Your task to perform on an android device: Add "beats solo 3" to the cart on newegg.com Image 0: 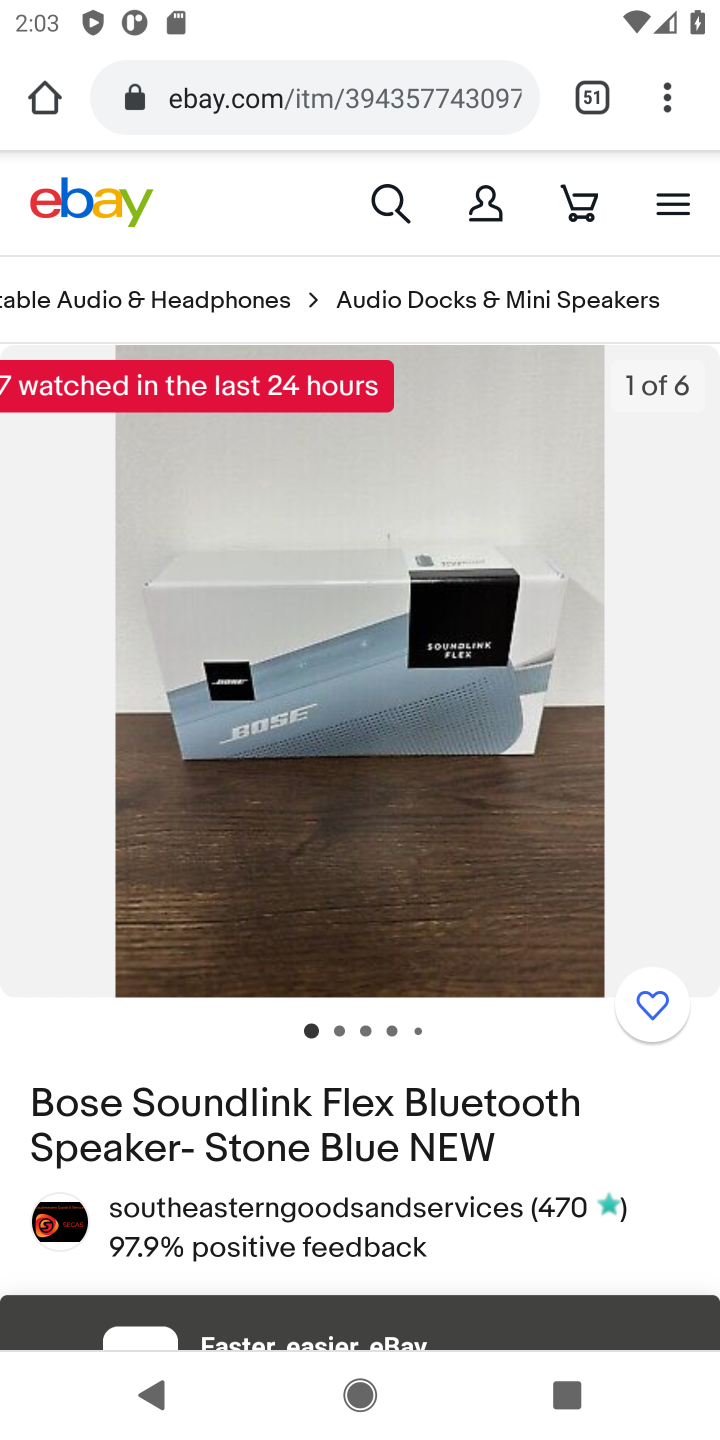
Step 0: press home button
Your task to perform on an android device: Add "beats solo 3" to the cart on newegg.com Image 1: 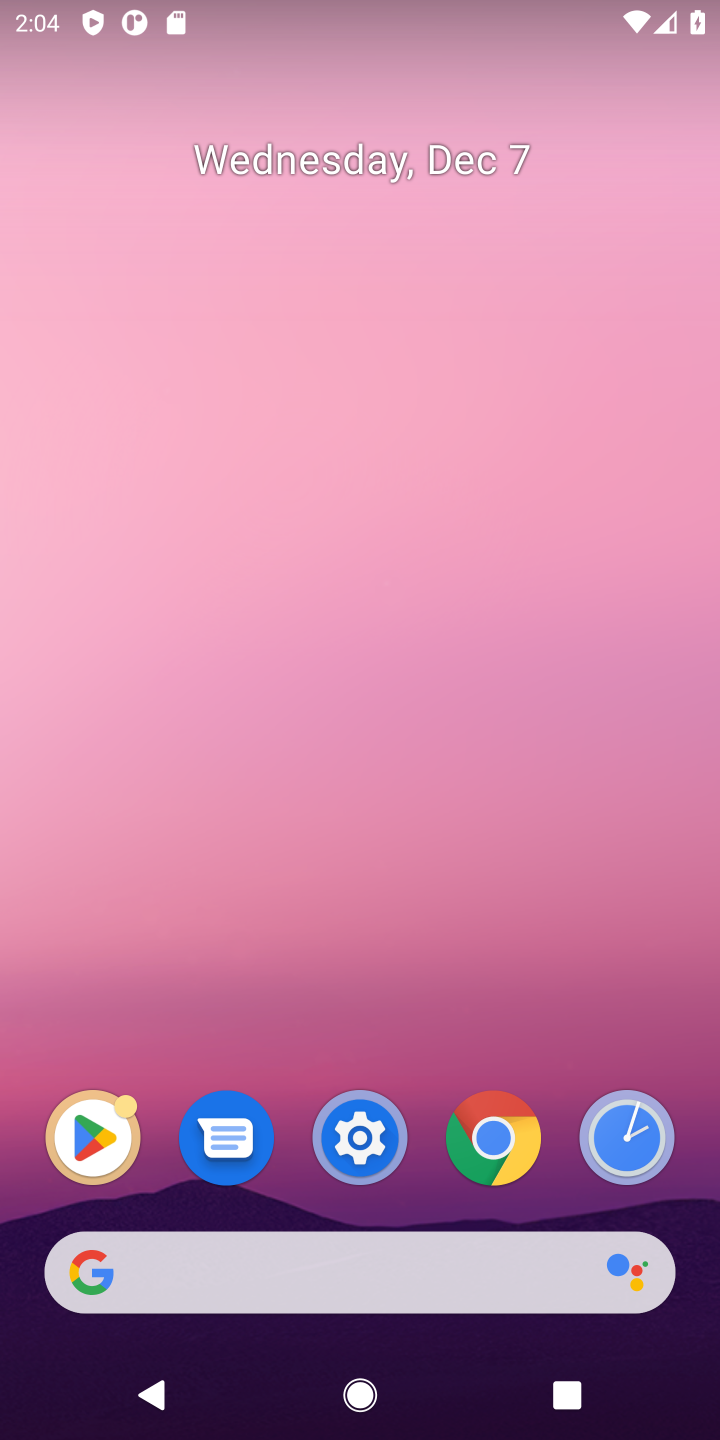
Step 1: click (305, 1250)
Your task to perform on an android device: Add "beats solo 3" to the cart on newegg.com Image 2: 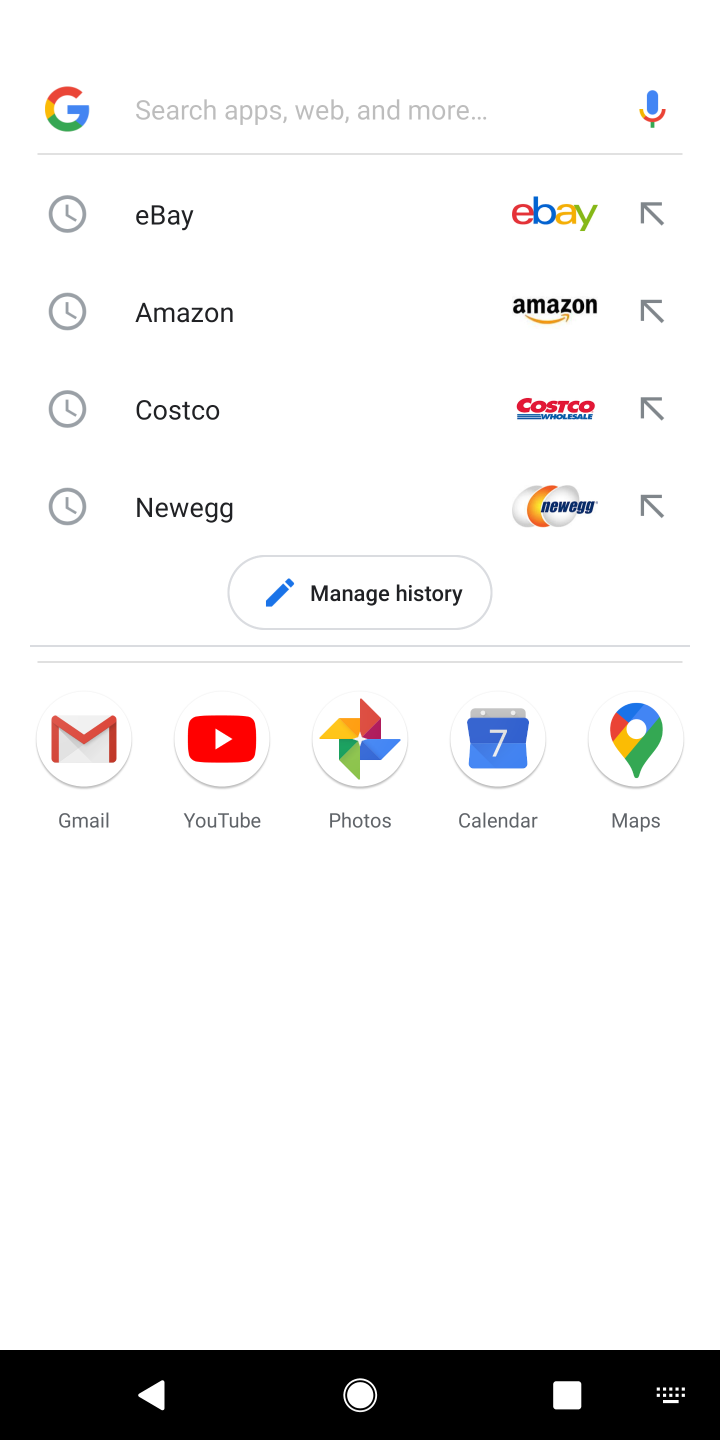
Step 2: type "beats solo"
Your task to perform on an android device: Add "beats solo 3" to the cart on newegg.com Image 3: 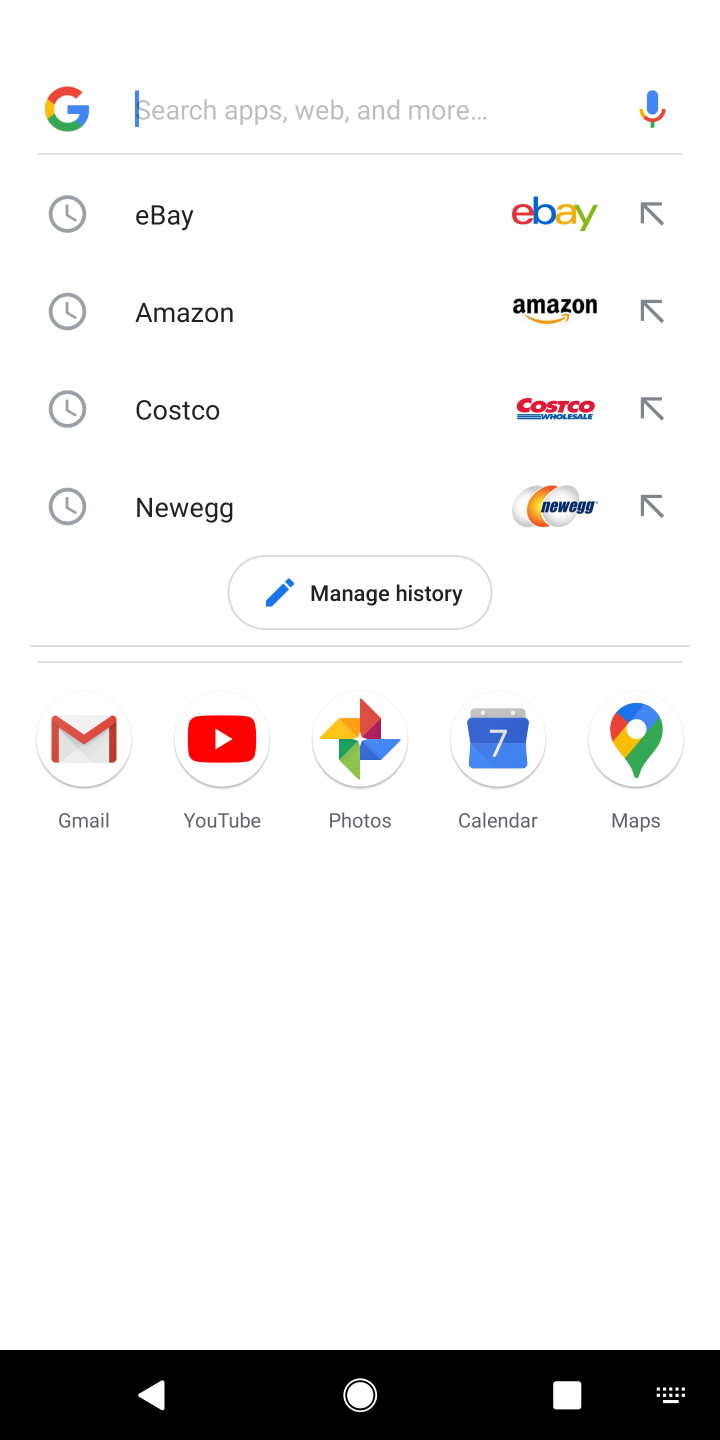
Step 3: click (196, 499)
Your task to perform on an android device: Add "beats solo 3" to the cart on newegg.com Image 4: 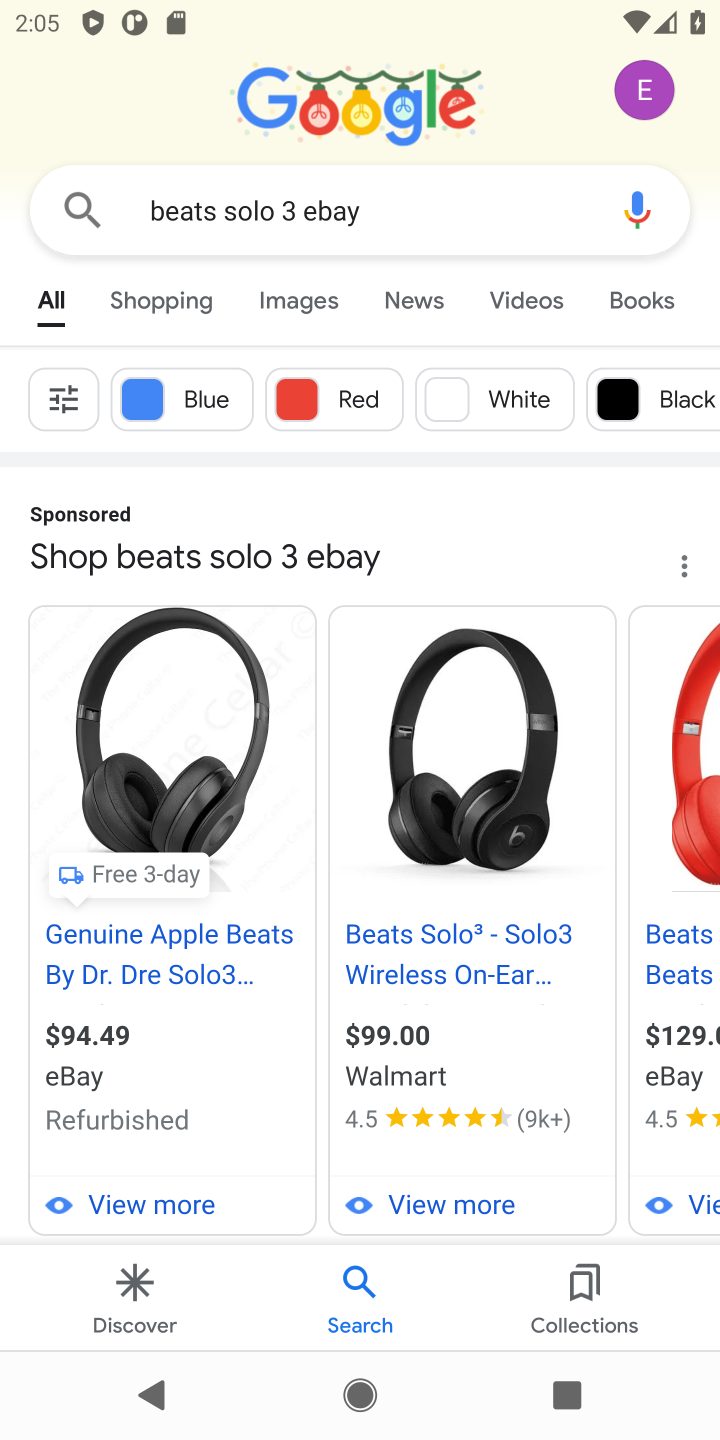
Step 4: task complete